Your task to perform on an android device: Go to privacy settings Image 0: 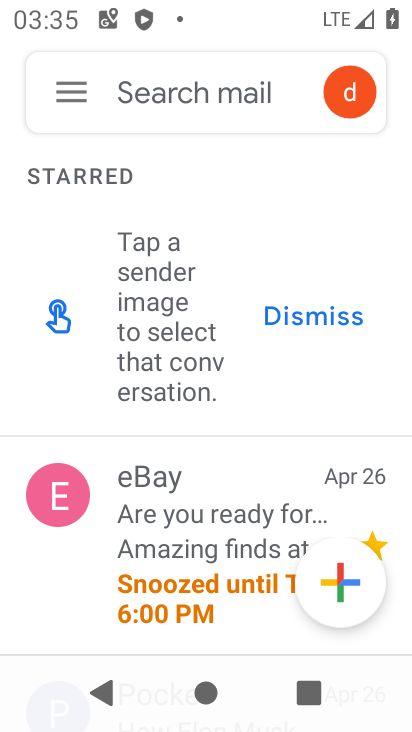
Step 0: press home button
Your task to perform on an android device: Go to privacy settings Image 1: 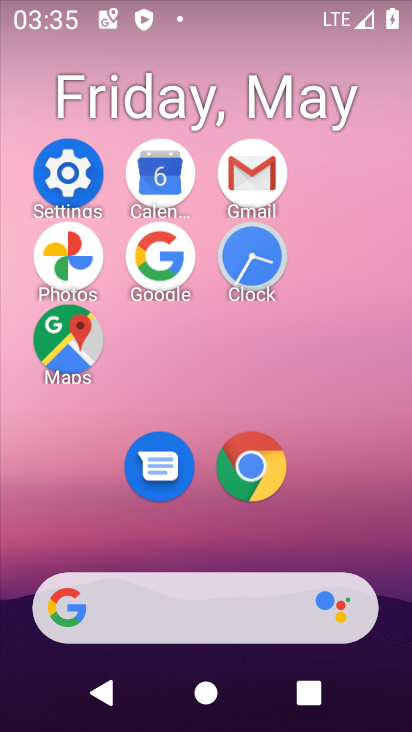
Step 1: click (77, 166)
Your task to perform on an android device: Go to privacy settings Image 2: 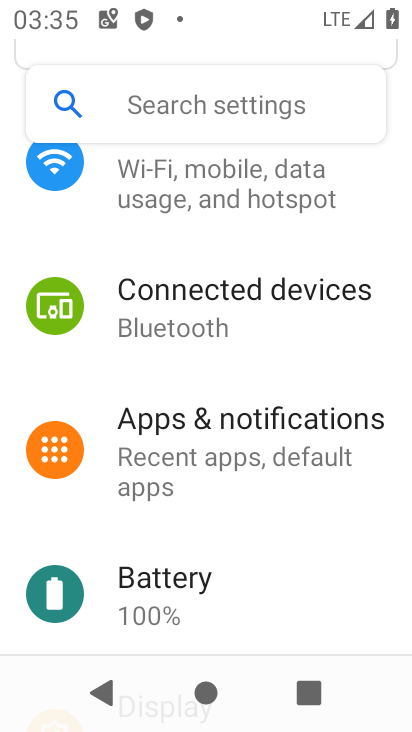
Step 2: drag from (250, 549) to (246, 183)
Your task to perform on an android device: Go to privacy settings Image 3: 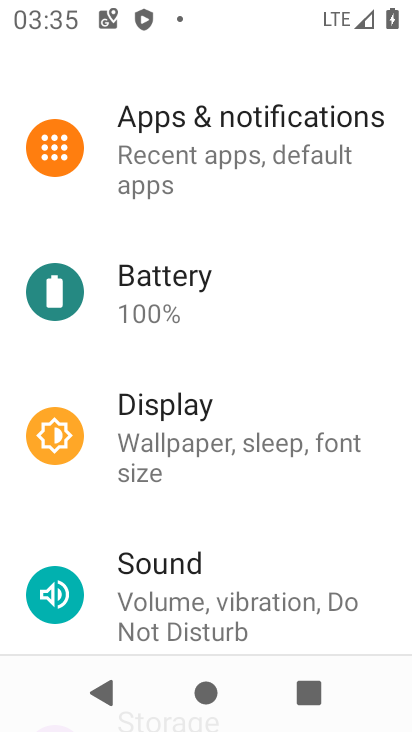
Step 3: drag from (270, 509) to (259, 100)
Your task to perform on an android device: Go to privacy settings Image 4: 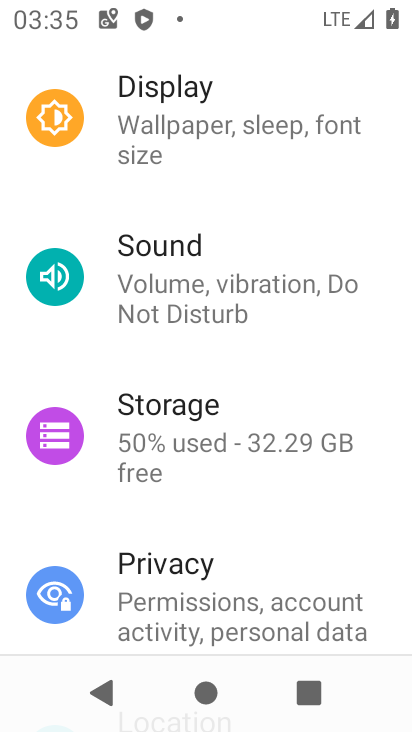
Step 4: click (220, 581)
Your task to perform on an android device: Go to privacy settings Image 5: 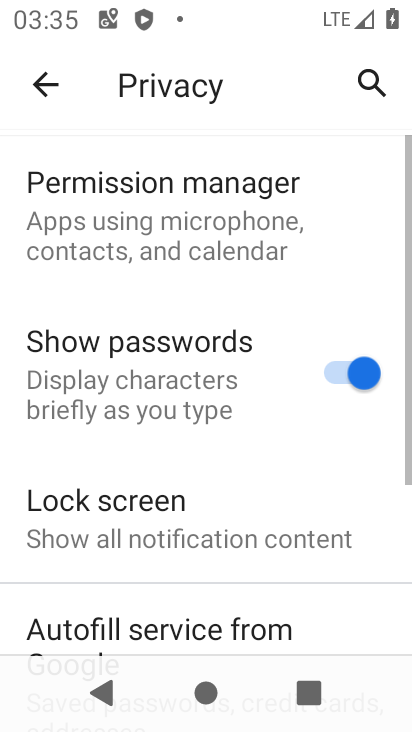
Step 5: task complete